Your task to perform on an android device: open a bookmark in the chrome app Image 0: 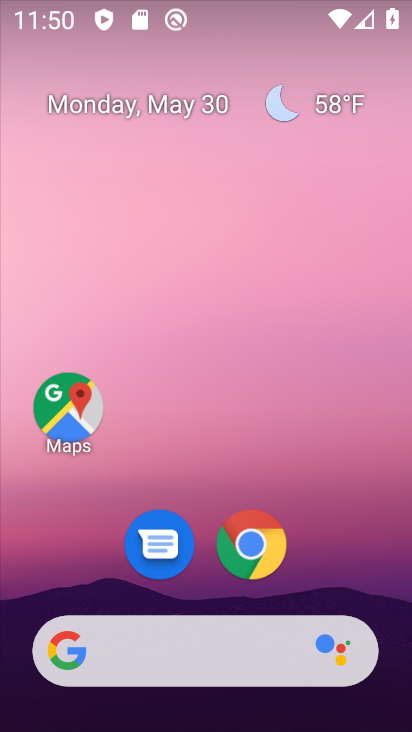
Step 0: task complete